Your task to perform on an android device: Go to Yahoo.com Image 0: 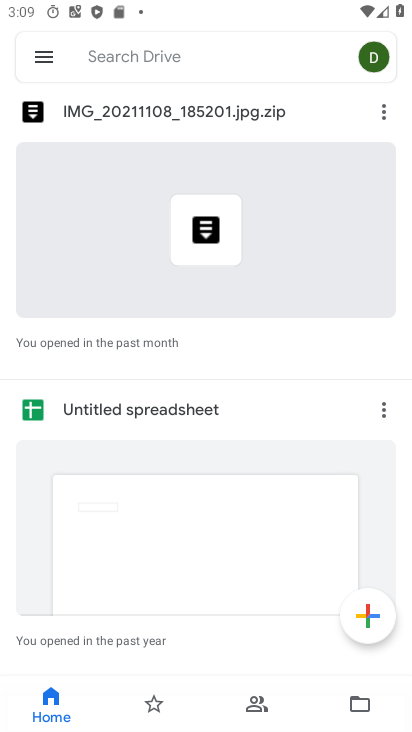
Step 0: press home button
Your task to perform on an android device: Go to Yahoo.com Image 1: 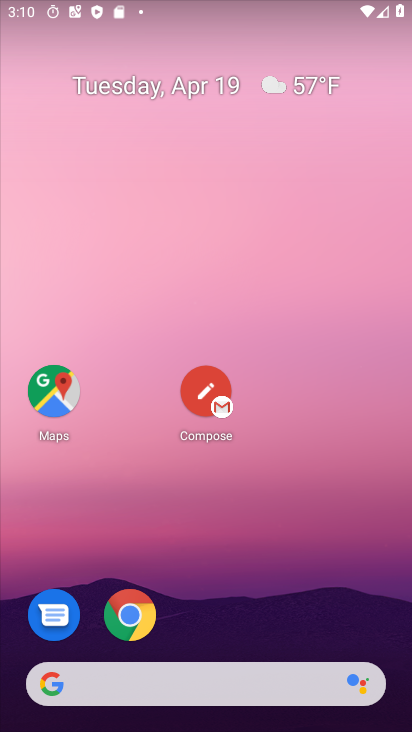
Step 1: drag from (293, 581) to (322, 1)
Your task to perform on an android device: Go to Yahoo.com Image 2: 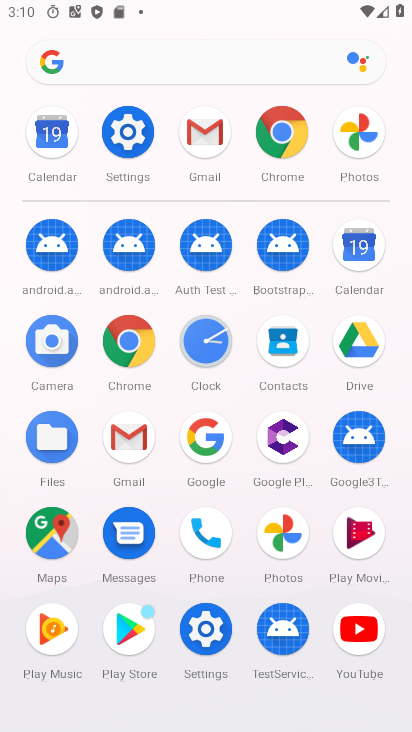
Step 2: click (116, 340)
Your task to perform on an android device: Go to Yahoo.com Image 3: 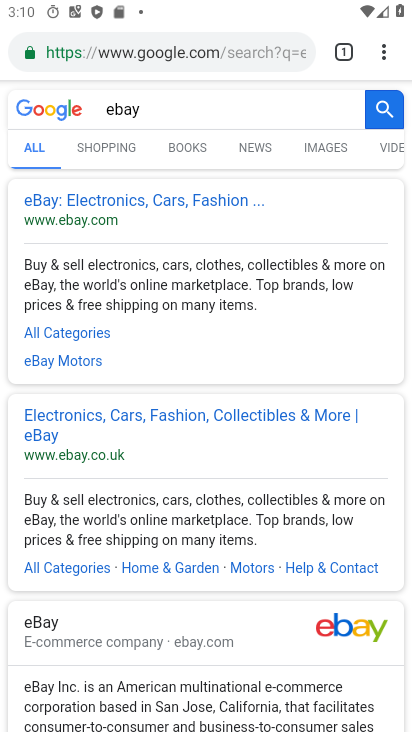
Step 3: click (297, 109)
Your task to perform on an android device: Go to Yahoo.com Image 4: 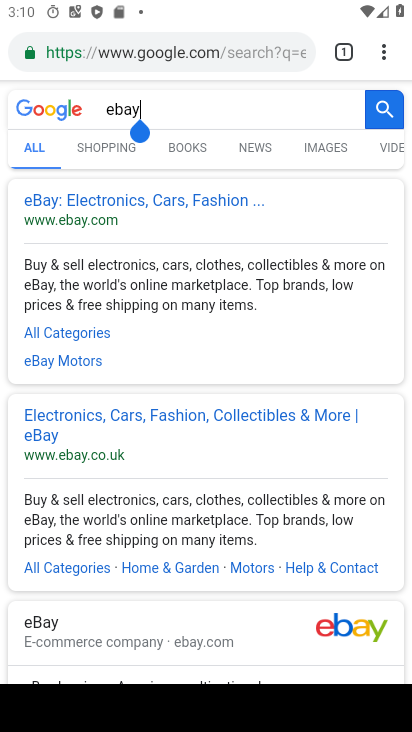
Step 4: click (276, 48)
Your task to perform on an android device: Go to Yahoo.com Image 5: 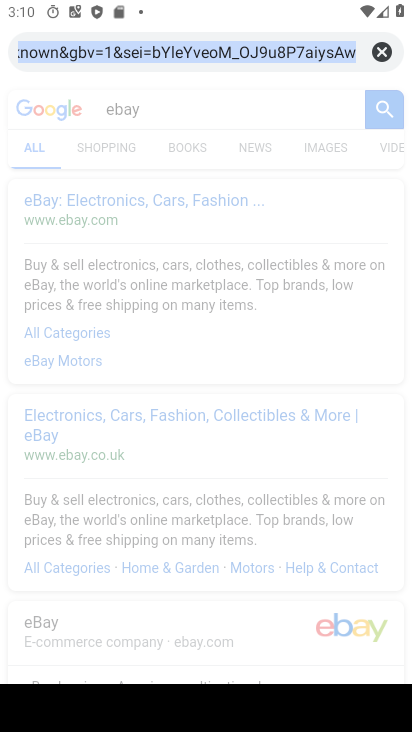
Step 5: click (371, 48)
Your task to perform on an android device: Go to Yahoo.com Image 6: 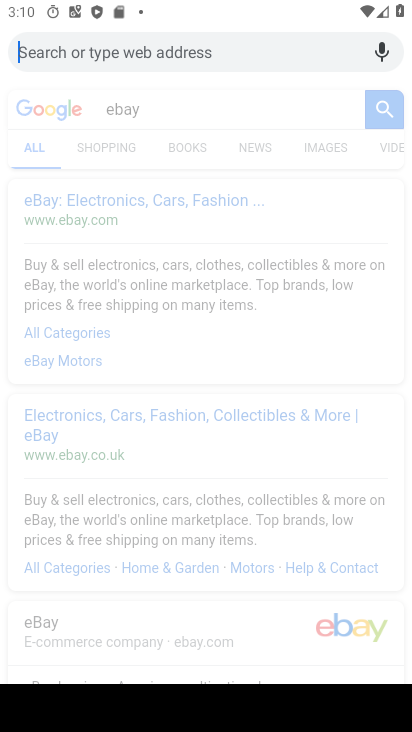
Step 6: type "yahoo"
Your task to perform on an android device: Go to Yahoo.com Image 7: 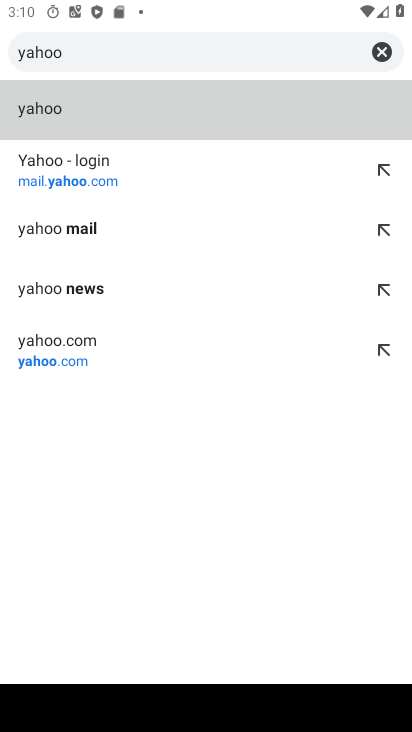
Step 7: click (102, 351)
Your task to perform on an android device: Go to Yahoo.com Image 8: 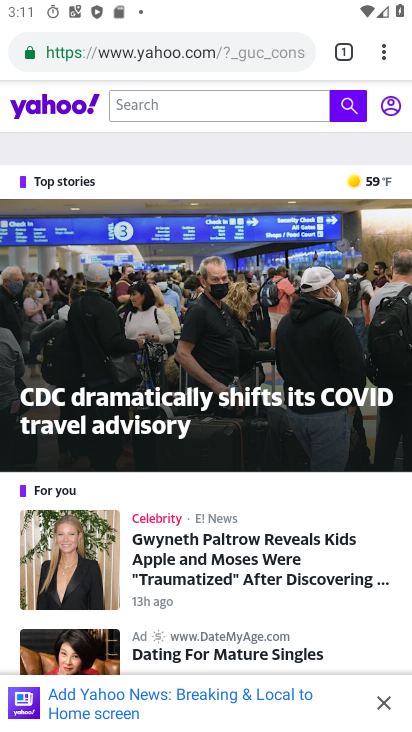
Step 8: task complete